Your task to perform on an android device: turn off sleep mode Image 0: 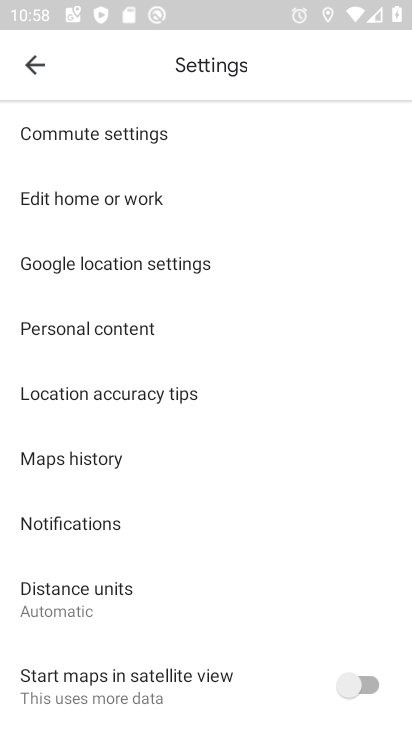
Step 0: press home button
Your task to perform on an android device: turn off sleep mode Image 1: 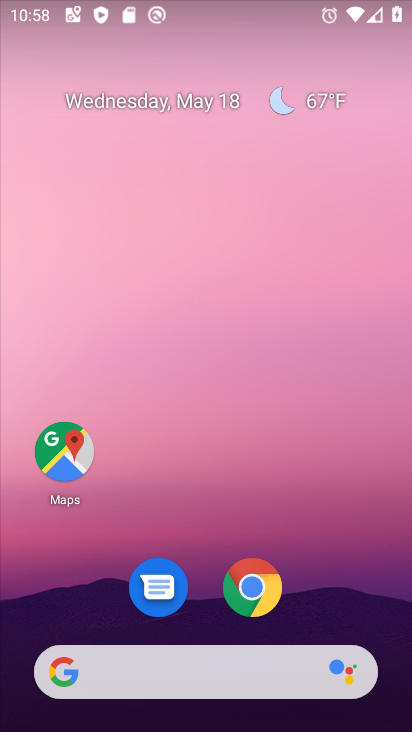
Step 1: drag from (351, 514) to (318, 198)
Your task to perform on an android device: turn off sleep mode Image 2: 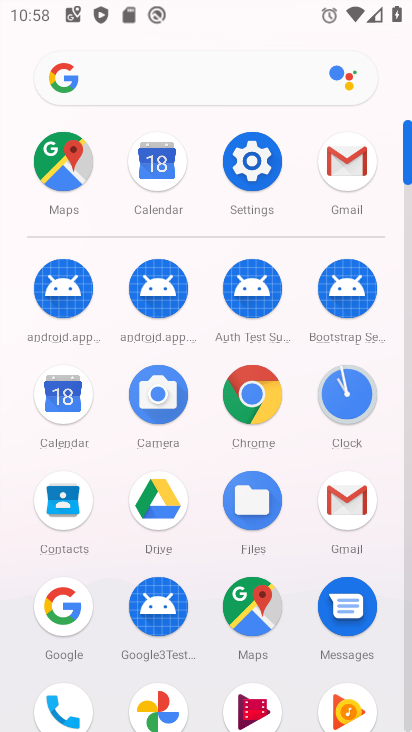
Step 2: click (235, 161)
Your task to perform on an android device: turn off sleep mode Image 3: 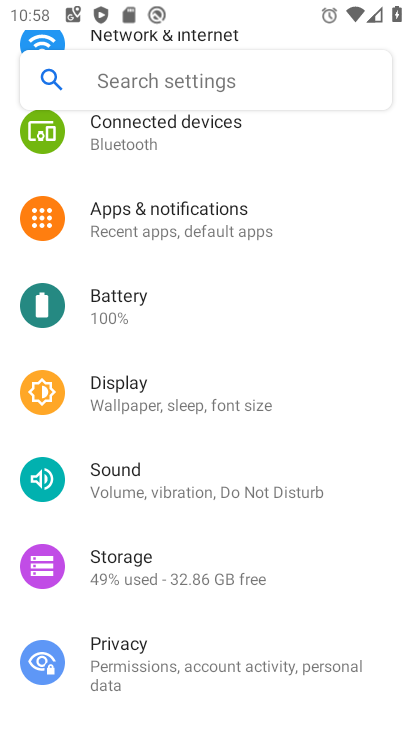
Step 3: click (191, 390)
Your task to perform on an android device: turn off sleep mode Image 4: 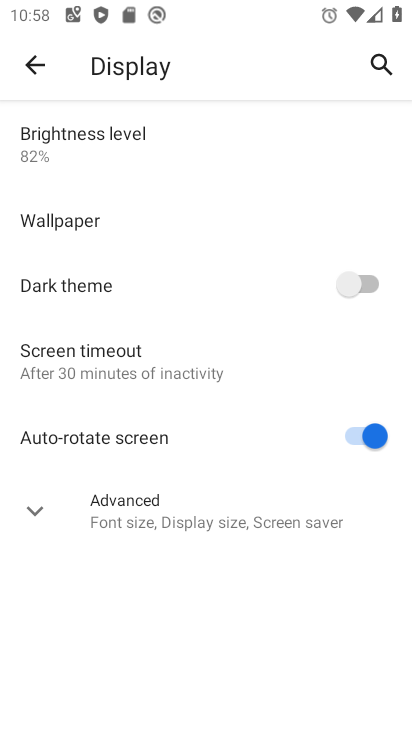
Step 4: click (168, 509)
Your task to perform on an android device: turn off sleep mode Image 5: 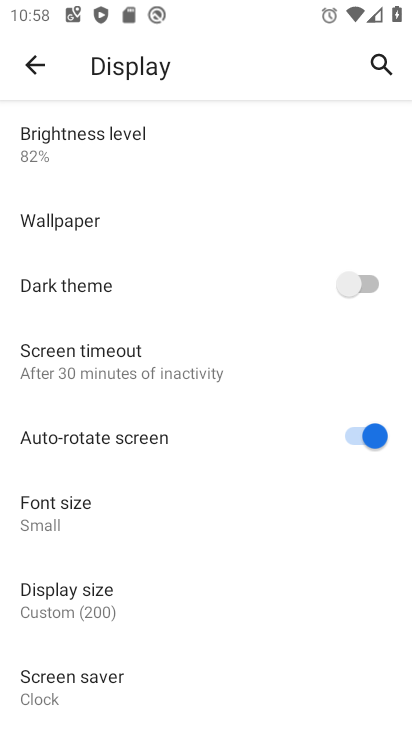
Step 5: task complete